Your task to perform on an android device: allow notifications from all sites in the chrome app Image 0: 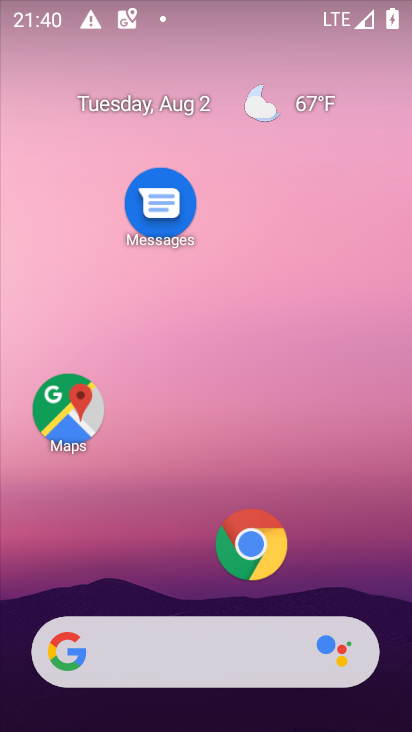
Step 0: click (249, 565)
Your task to perform on an android device: allow notifications from all sites in the chrome app Image 1: 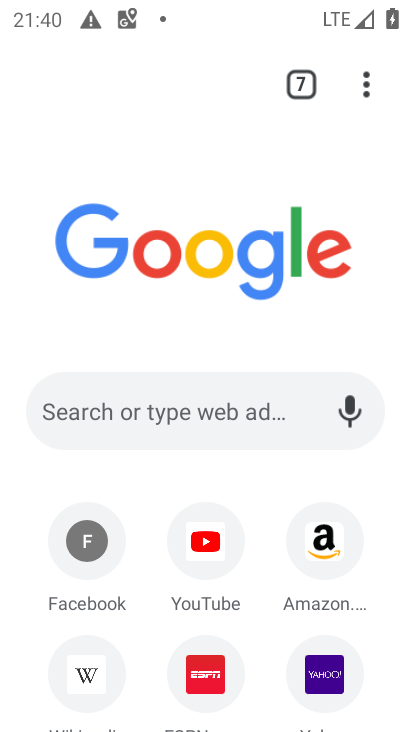
Step 1: click (367, 98)
Your task to perform on an android device: allow notifications from all sites in the chrome app Image 2: 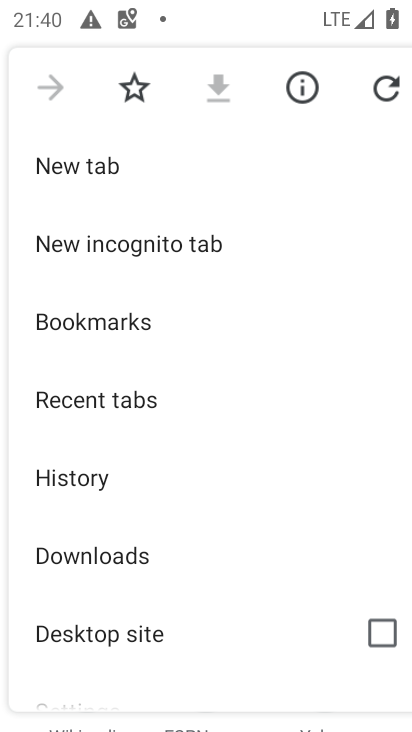
Step 2: drag from (108, 613) to (119, 190)
Your task to perform on an android device: allow notifications from all sites in the chrome app Image 3: 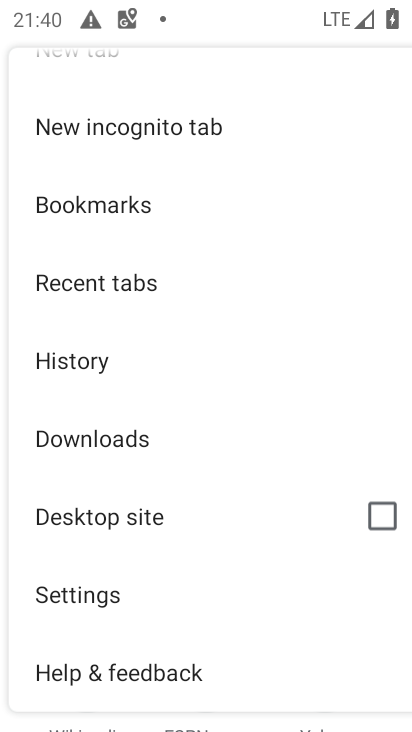
Step 3: click (92, 584)
Your task to perform on an android device: allow notifications from all sites in the chrome app Image 4: 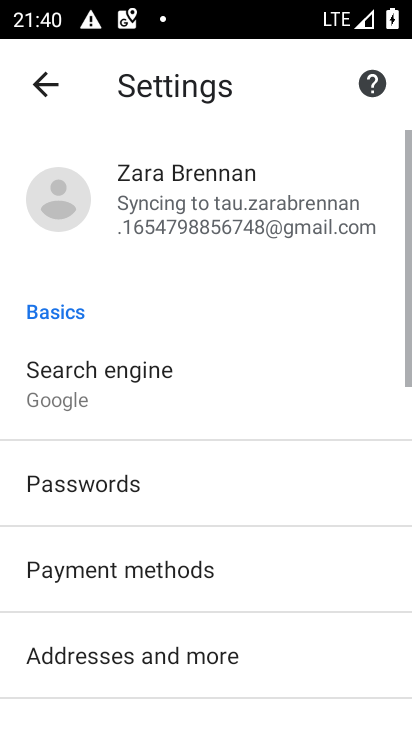
Step 4: drag from (164, 628) to (168, 267)
Your task to perform on an android device: allow notifications from all sites in the chrome app Image 5: 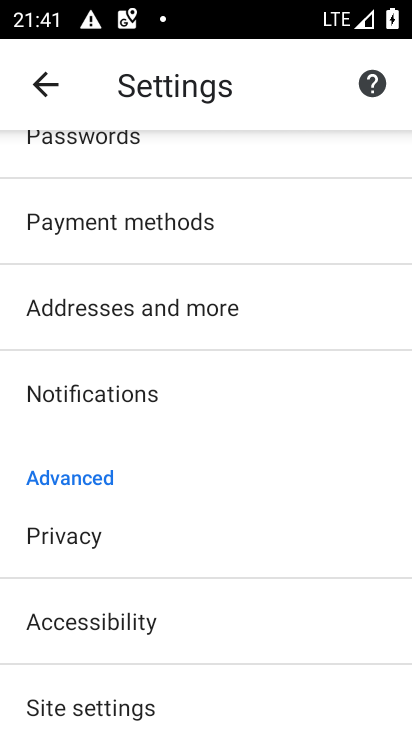
Step 5: drag from (163, 663) to (157, 343)
Your task to perform on an android device: allow notifications from all sites in the chrome app Image 6: 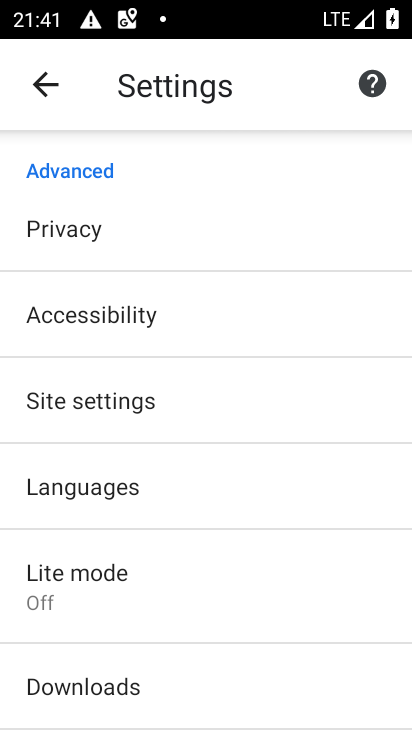
Step 6: click (132, 410)
Your task to perform on an android device: allow notifications from all sites in the chrome app Image 7: 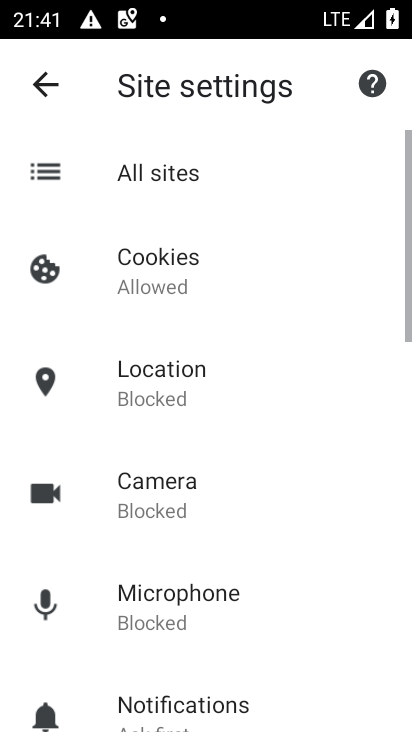
Step 7: click (134, 183)
Your task to perform on an android device: allow notifications from all sites in the chrome app Image 8: 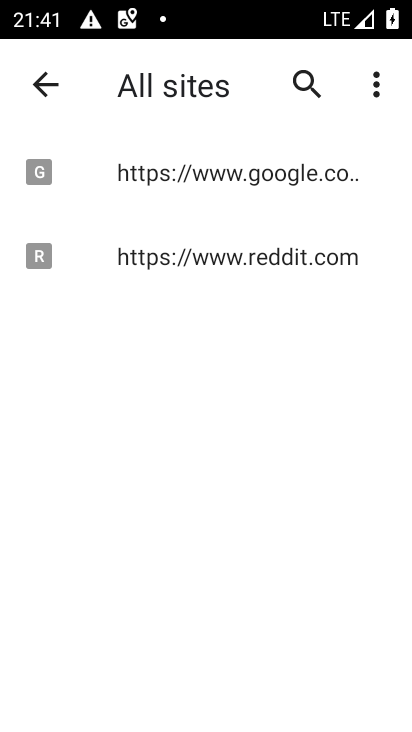
Step 8: click (135, 182)
Your task to perform on an android device: allow notifications from all sites in the chrome app Image 9: 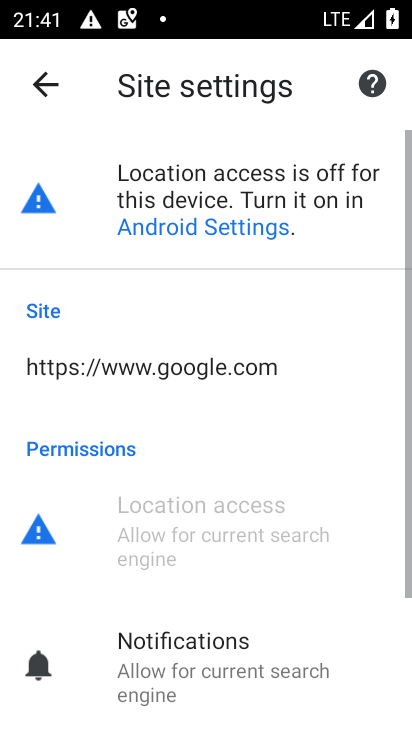
Step 9: click (211, 681)
Your task to perform on an android device: allow notifications from all sites in the chrome app Image 10: 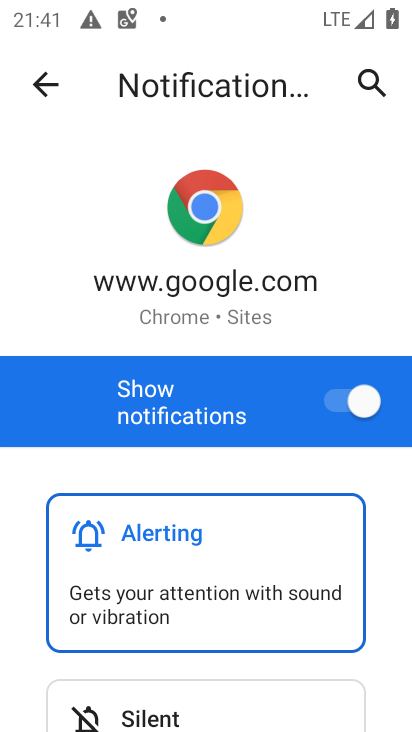
Step 10: task complete